Your task to perform on an android device: turn on bluetooth scan Image 0: 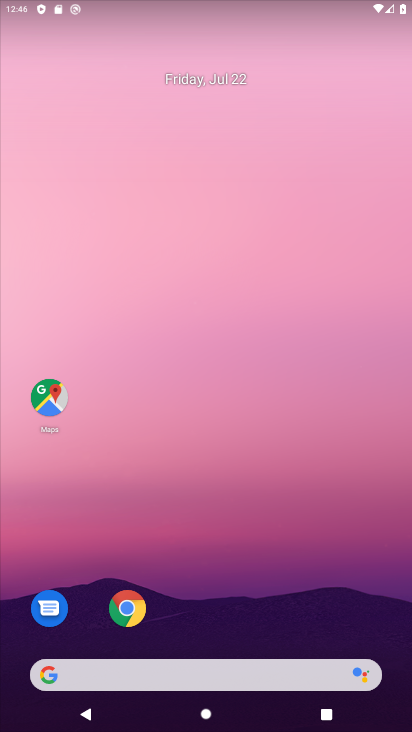
Step 0: drag from (404, 699) to (357, 99)
Your task to perform on an android device: turn on bluetooth scan Image 1: 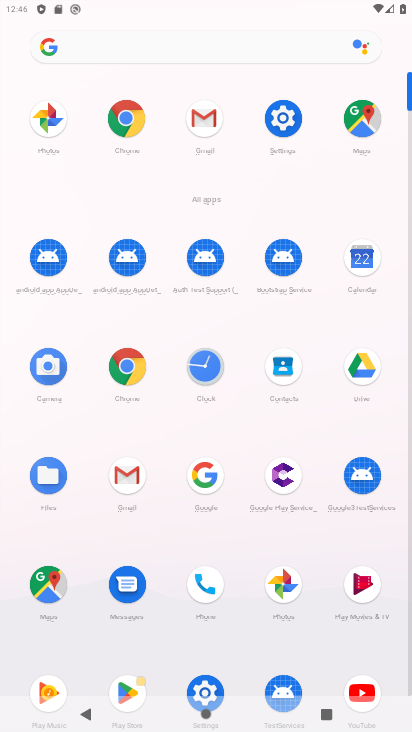
Step 1: click (276, 116)
Your task to perform on an android device: turn on bluetooth scan Image 2: 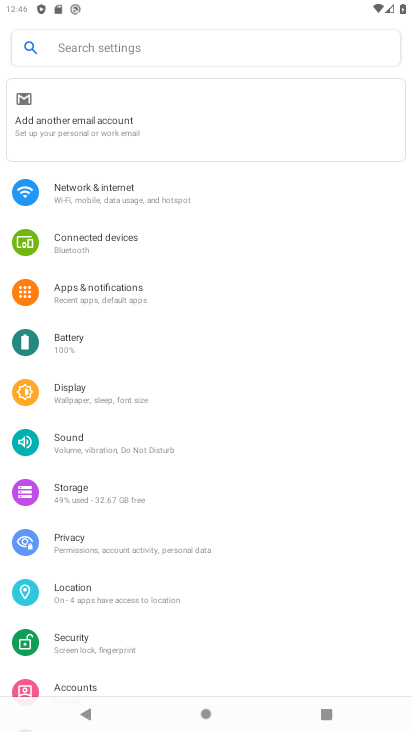
Step 2: click (82, 598)
Your task to perform on an android device: turn on bluetooth scan Image 3: 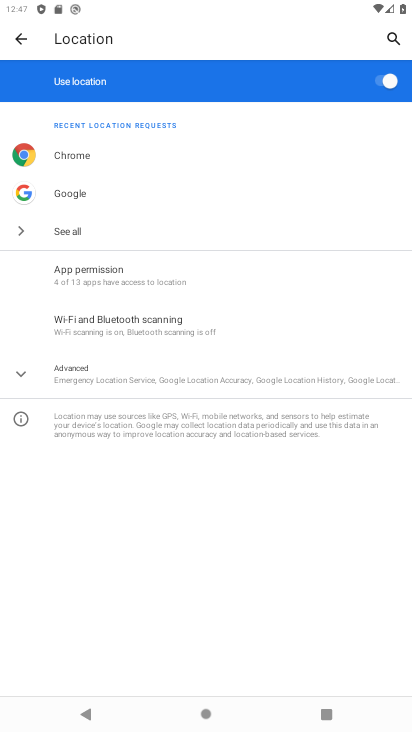
Step 3: click (21, 374)
Your task to perform on an android device: turn on bluetooth scan Image 4: 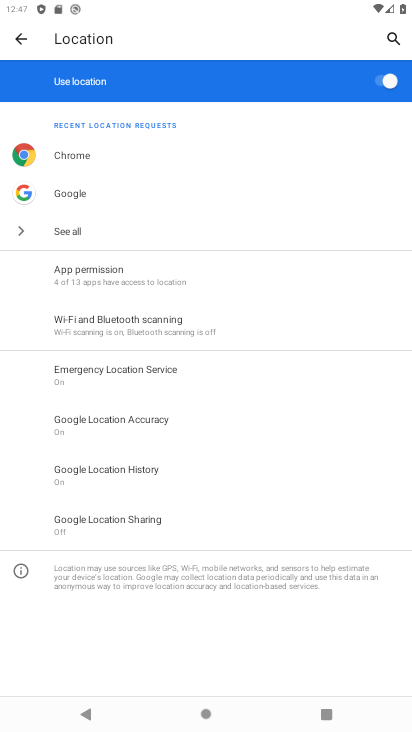
Step 4: click (161, 326)
Your task to perform on an android device: turn on bluetooth scan Image 5: 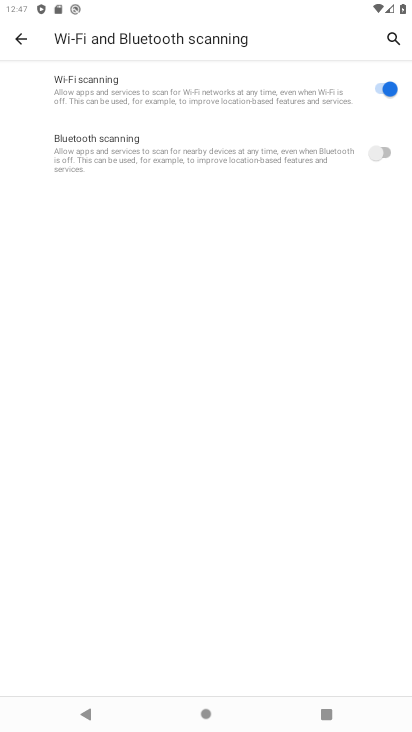
Step 5: click (381, 153)
Your task to perform on an android device: turn on bluetooth scan Image 6: 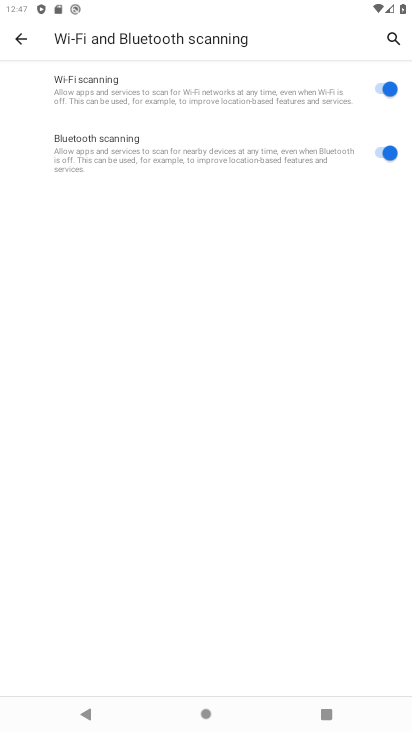
Step 6: task complete